Your task to perform on an android device: Open display settings Image 0: 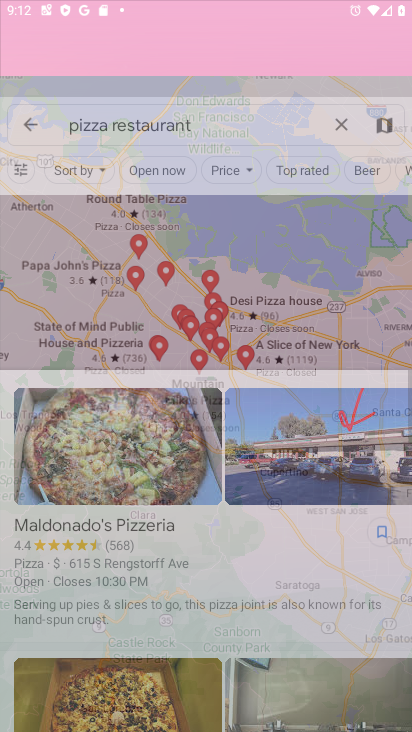
Step 0: drag from (253, 351) to (243, 133)
Your task to perform on an android device: Open display settings Image 1: 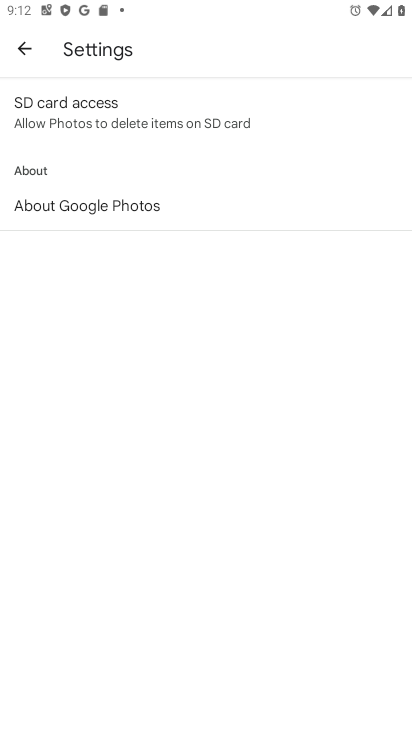
Step 1: press home button
Your task to perform on an android device: Open display settings Image 2: 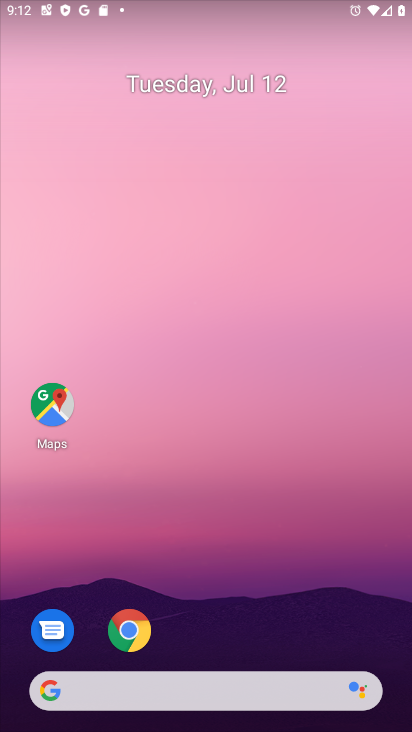
Step 2: drag from (236, 642) to (188, 95)
Your task to perform on an android device: Open display settings Image 3: 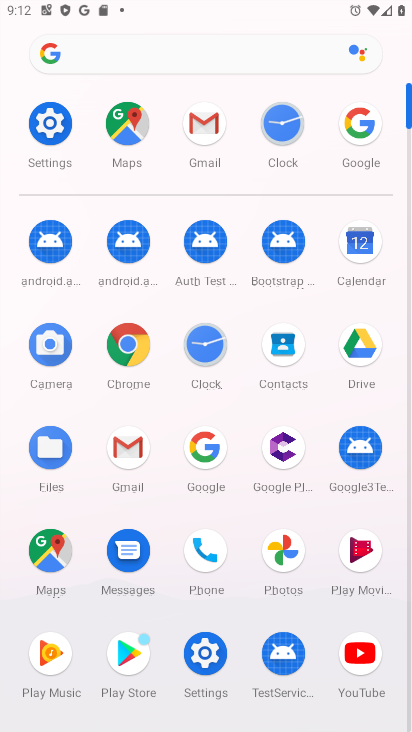
Step 3: click (53, 125)
Your task to perform on an android device: Open display settings Image 4: 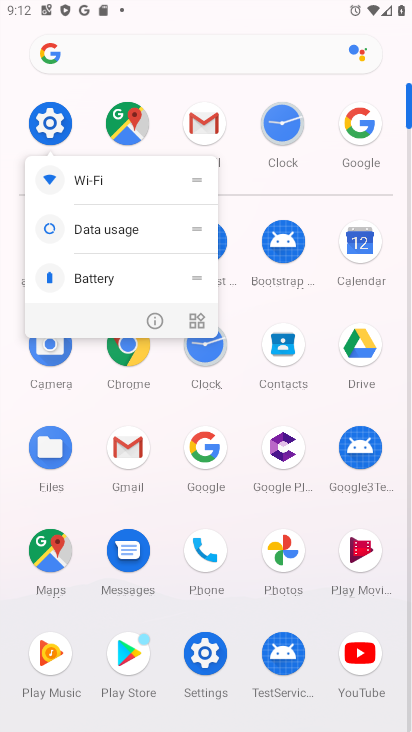
Step 4: click (55, 126)
Your task to perform on an android device: Open display settings Image 5: 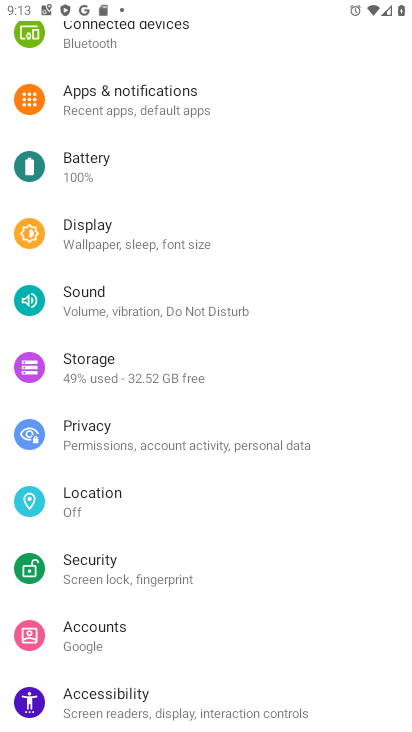
Step 5: click (109, 230)
Your task to perform on an android device: Open display settings Image 6: 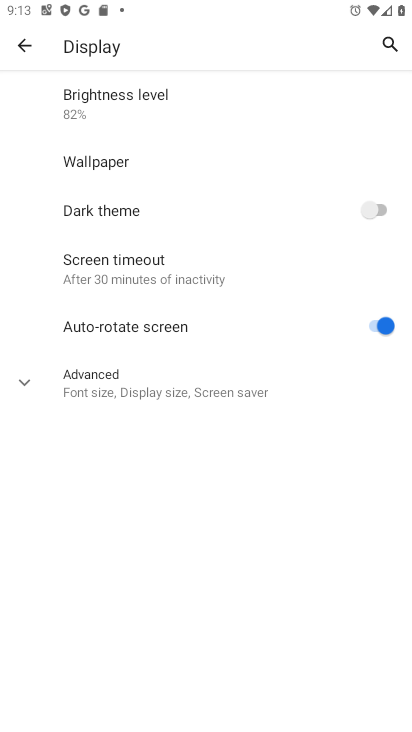
Step 6: task complete